Your task to perform on an android device: turn off location history Image 0: 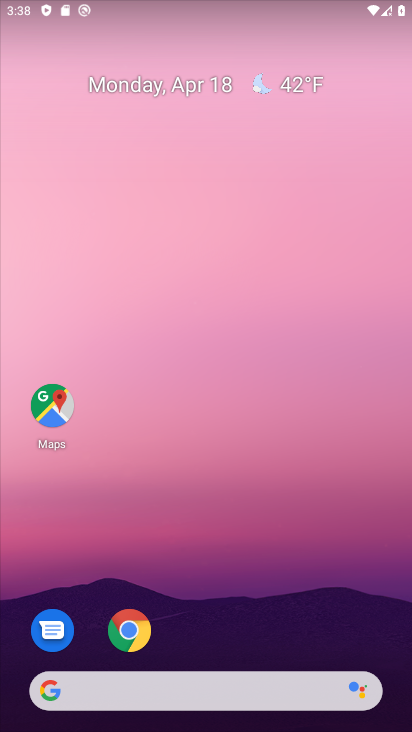
Step 0: drag from (275, 471) to (288, 306)
Your task to perform on an android device: turn off location history Image 1: 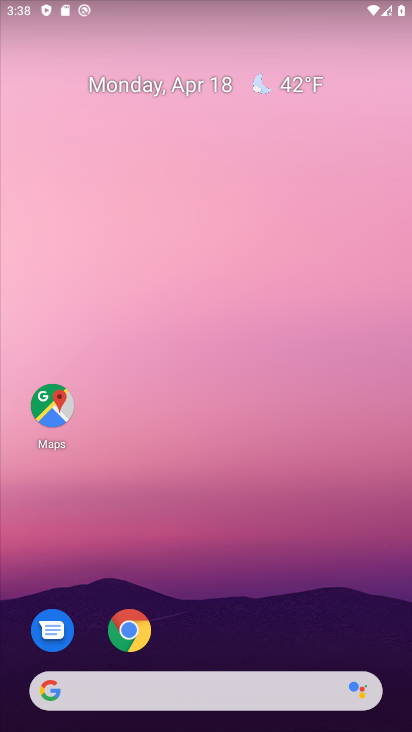
Step 1: drag from (276, 418) to (298, 192)
Your task to perform on an android device: turn off location history Image 2: 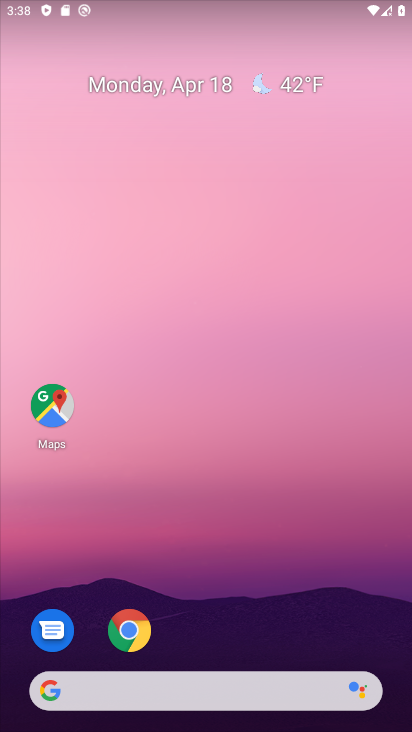
Step 2: drag from (258, 566) to (292, 207)
Your task to perform on an android device: turn off location history Image 3: 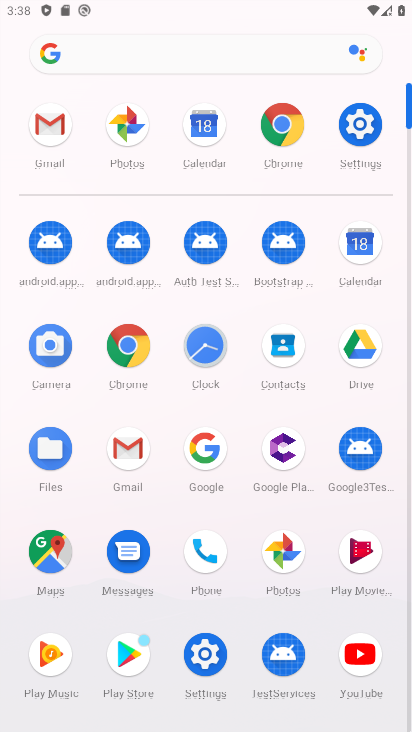
Step 3: click (352, 121)
Your task to perform on an android device: turn off location history Image 4: 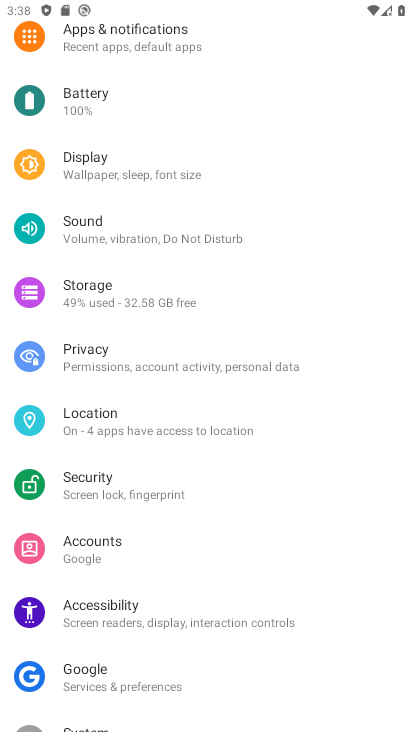
Step 4: click (111, 409)
Your task to perform on an android device: turn off location history Image 5: 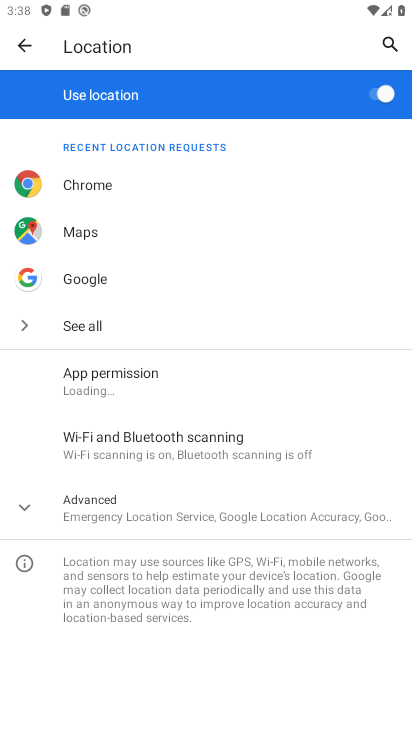
Step 5: click (174, 498)
Your task to perform on an android device: turn off location history Image 6: 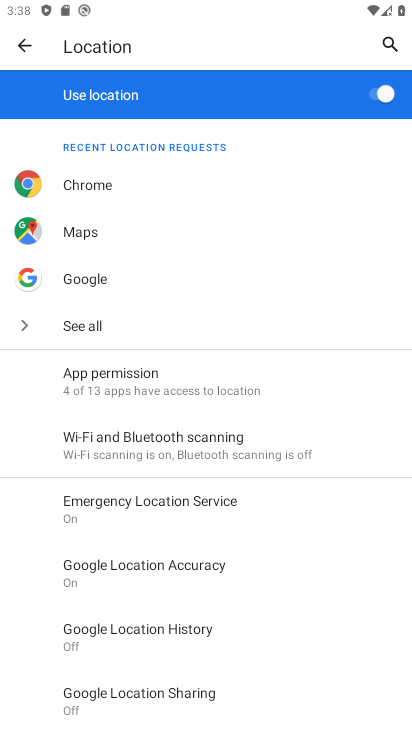
Step 6: click (178, 634)
Your task to perform on an android device: turn off location history Image 7: 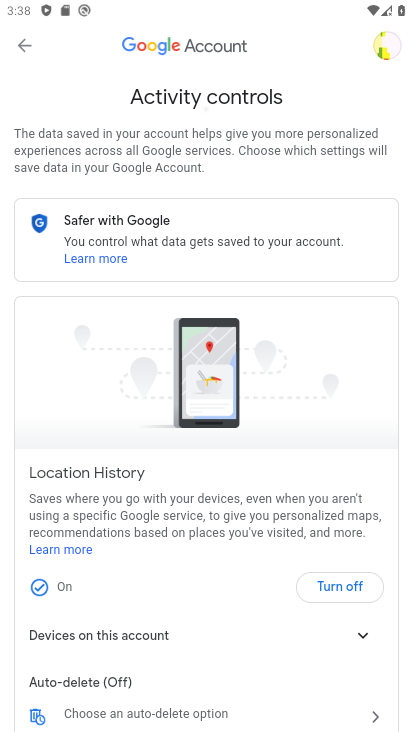
Step 7: task complete